Your task to perform on an android device: Search for the best rated 3d printer on Amazon. Image 0: 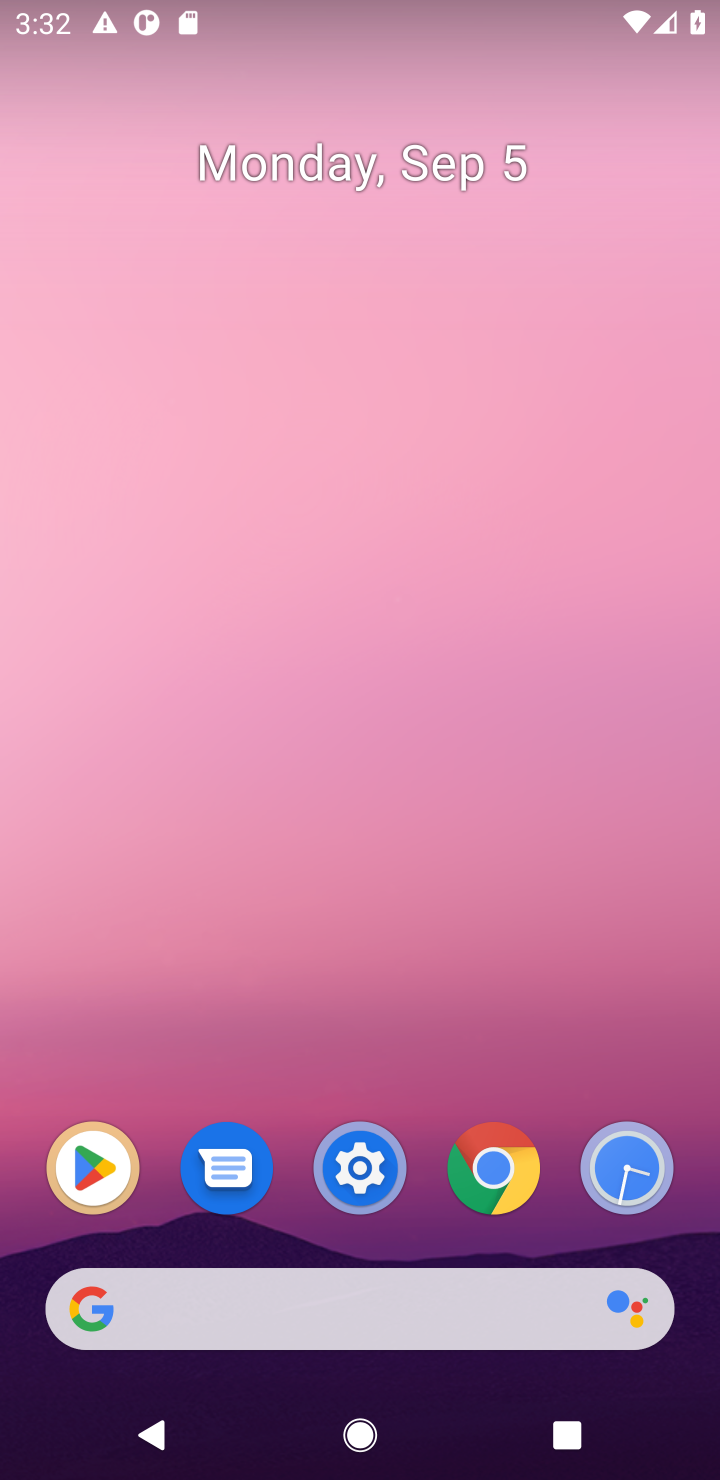
Step 0: click (108, 1169)
Your task to perform on an android device: Search for the best rated 3d printer on Amazon. Image 1: 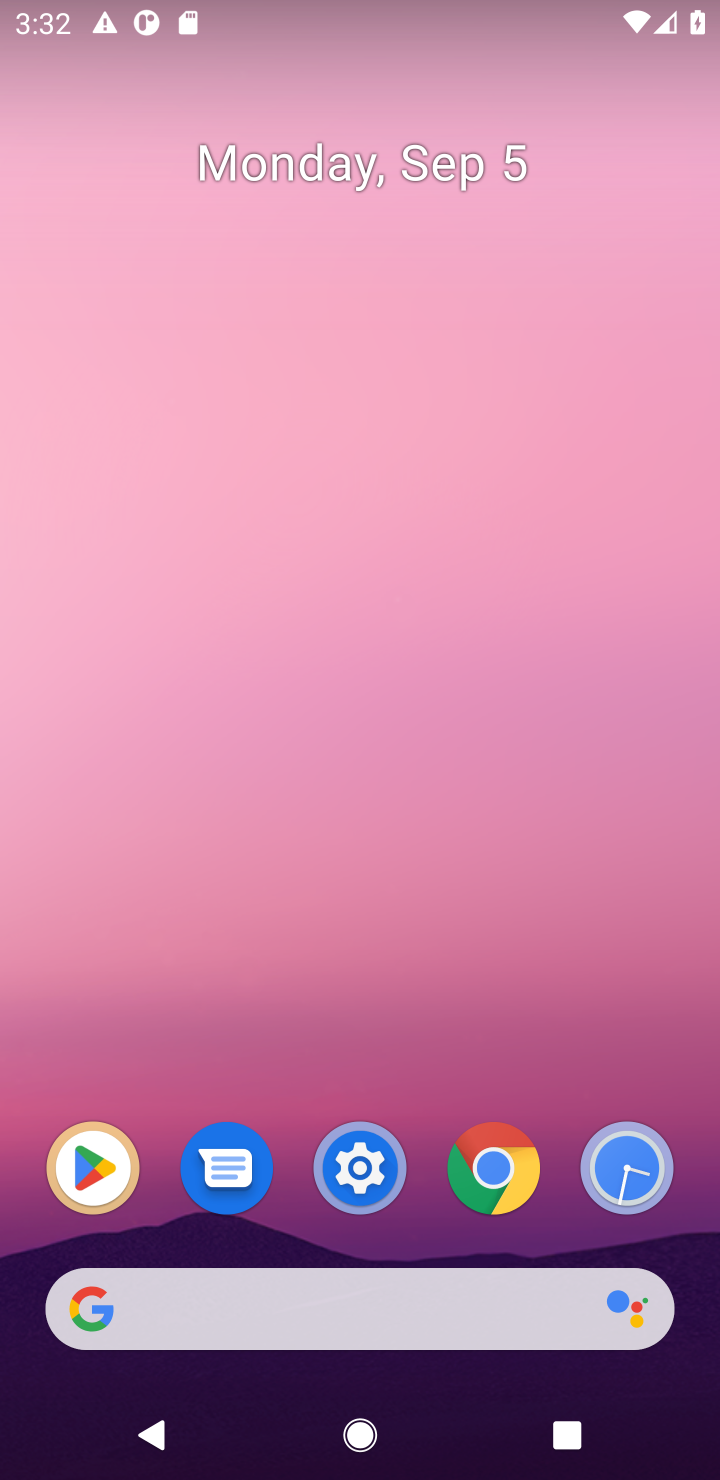
Step 1: click (497, 1138)
Your task to perform on an android device: Search for the best rated 3d printer on Amazon. Image 2: 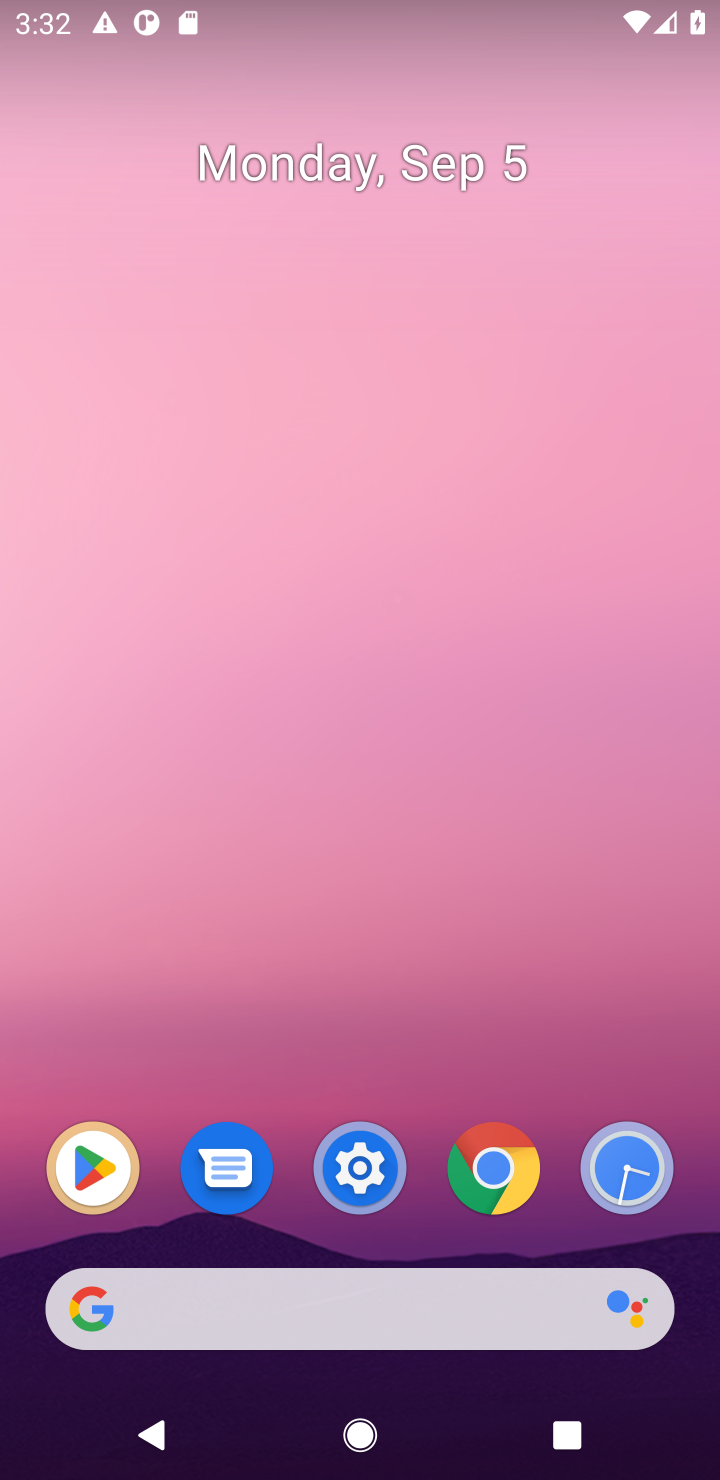
Step 2: task complete